Your task to perform on an android device: turn off sleep mode Image 0: 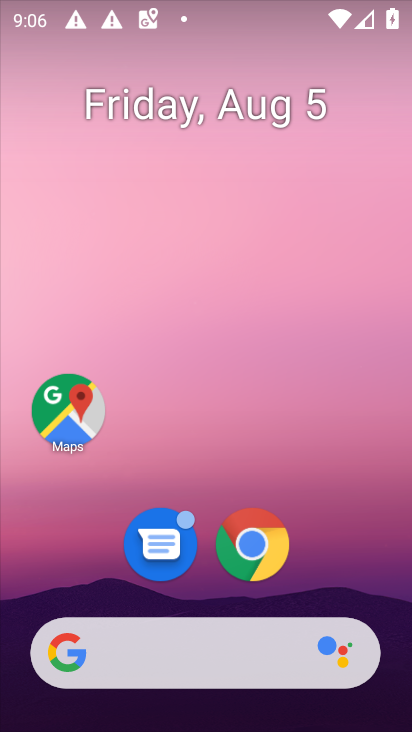
Step 0: drag from (274, 342) to (269, 58)
Your task to perform on an android device: turn off sleep mode Image 1: 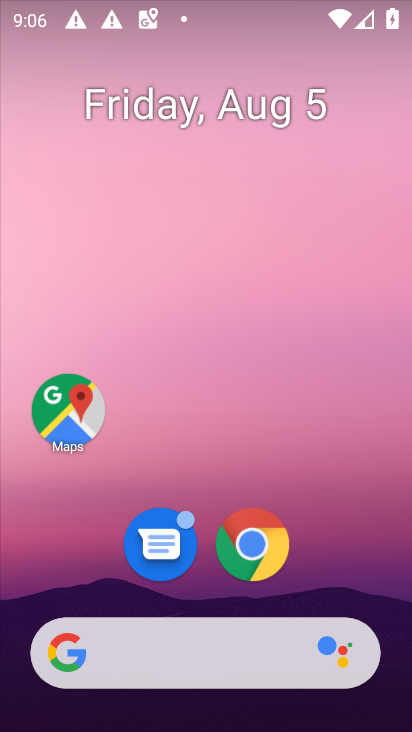
Step 1: drag from (291, 537) to (219, 58)
Your task to perform on an android device: turn off sleep mode Image 2: 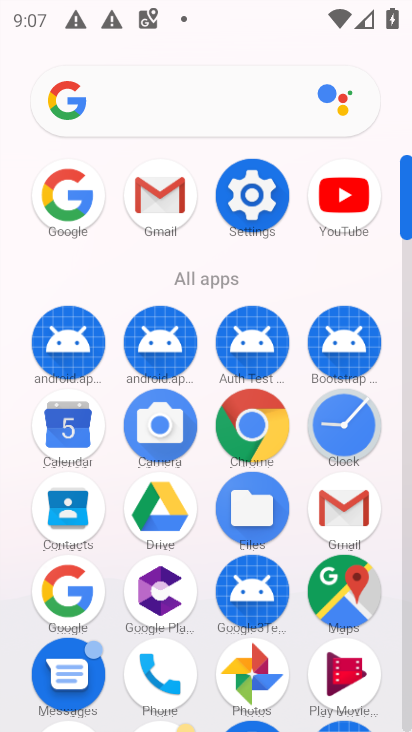
Step 2: click (234, 213)
Your task to perform on an android device: turn off sleep mode Image 3: 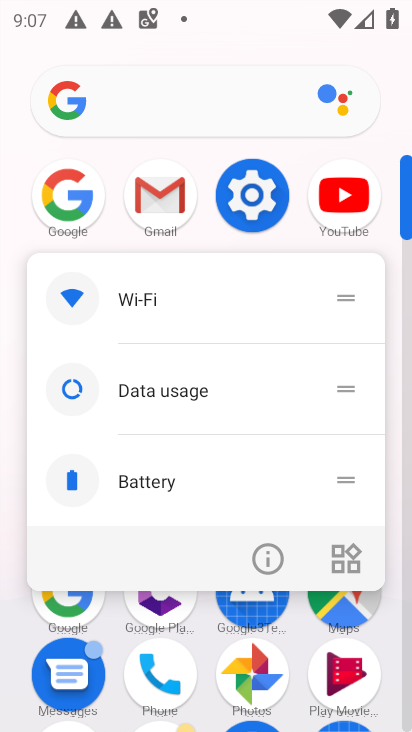
Step 3: click (243, 199)
Your task to perform on an android device: turn off sleep mode Image 4: 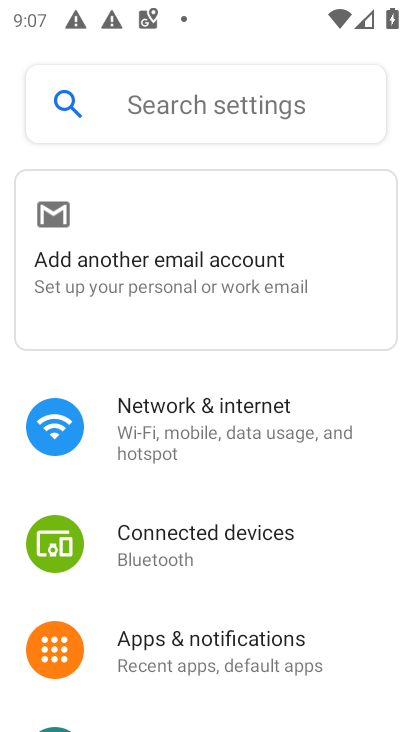
Step 4: drag from (156, 617) to (200, 157)
Your task to perform on an android device: turn off sleep mode Image 5: 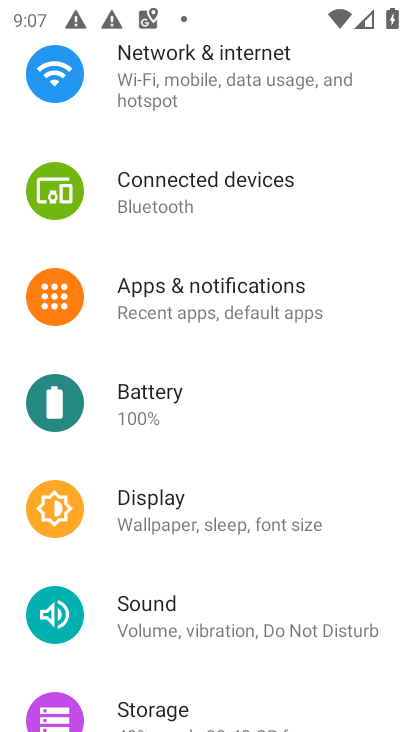
Step 5: click (116, 508)
Your task to perform on an android device: turn off sleep mode Image 6: 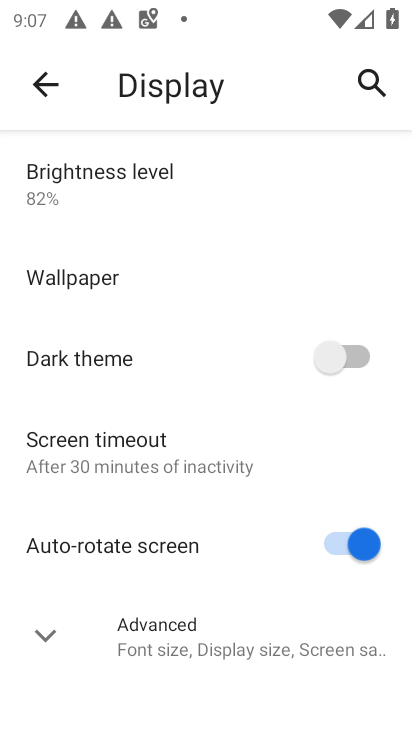
Step 6: click (83, 466)
Your task to perform on an android device: turn off sleep mode Image 7: 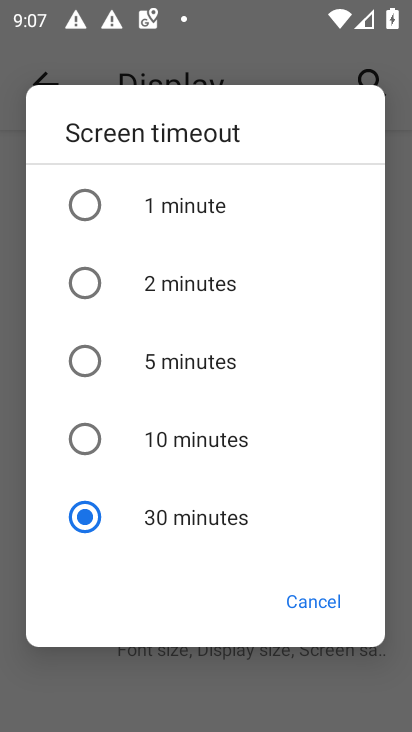
Step 7: task complete